Your task to perform on an android device: Go to wifi settings Image 0: 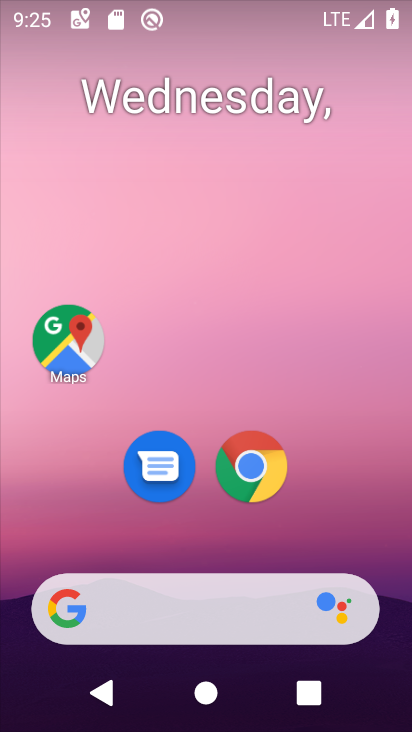
Step 0: drag from (217, 728) to (218, 259)
Your task to perform on an android device: Go to wifi settings Image 1: 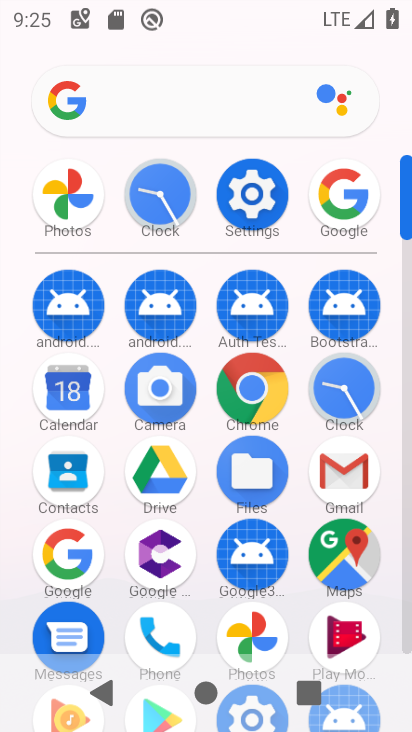
Step 1: click (259, 191)
Your task to perform on an android device: Go to wifi settings Image 2: 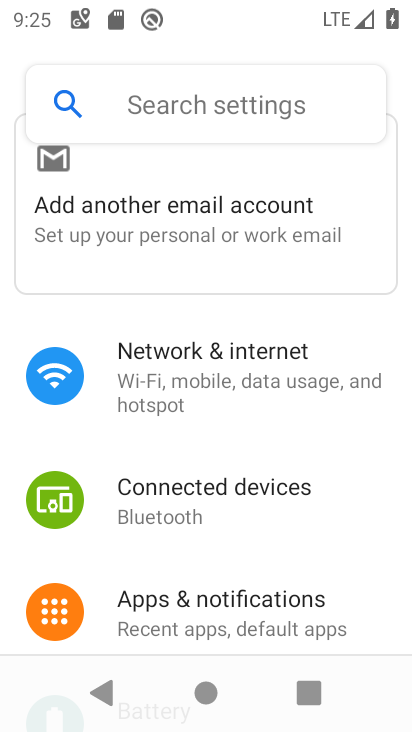
Step 2: click (152, 362)
Your task to perform on an android device: Go to wifi settings Image 3: 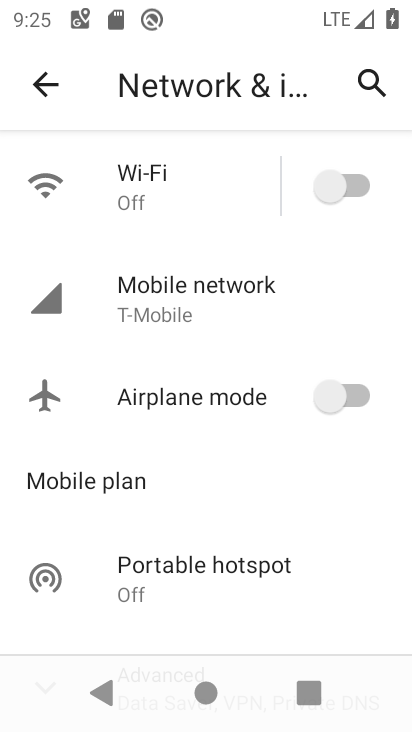
Step 3: click (131, 179)
Your task to perform on an android device: Go to wifi settings Image 4: 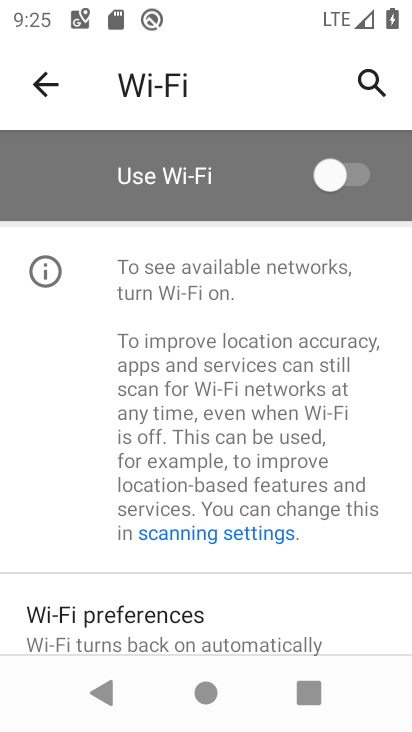
Step 4: task complete